Your task to perform on an android device: Search for the new steph curry shoes on Amazon. Image 0: 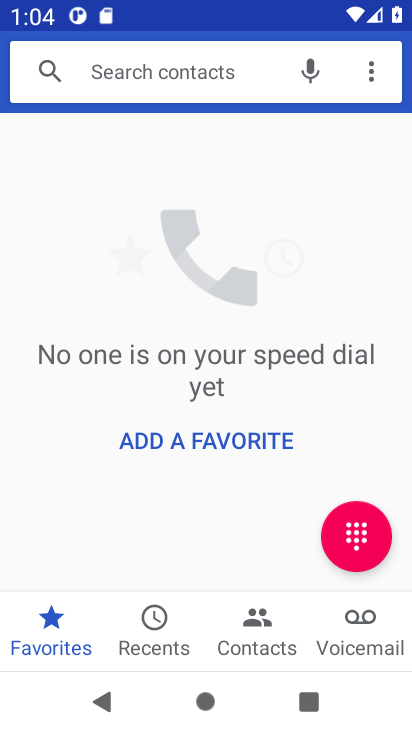
Step 0: press home button
Your task to perform on an android device: Search for the new steph curry shoes on Amazon. Image 1: 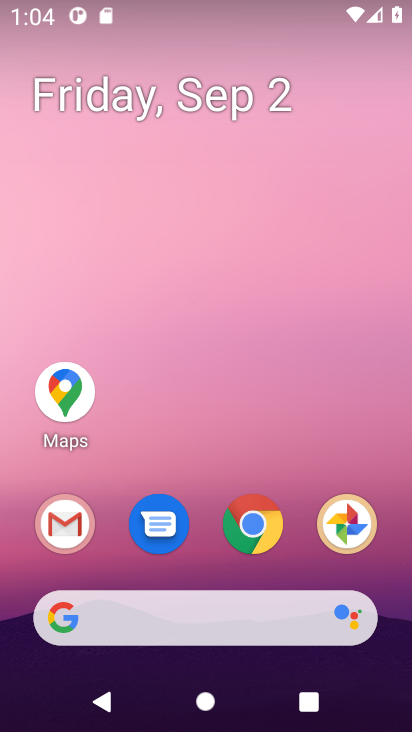
Step 1: click (292, 623)
Your task to perform on an android device: Search for the new steph curry shoes on Amazon. Image 2: 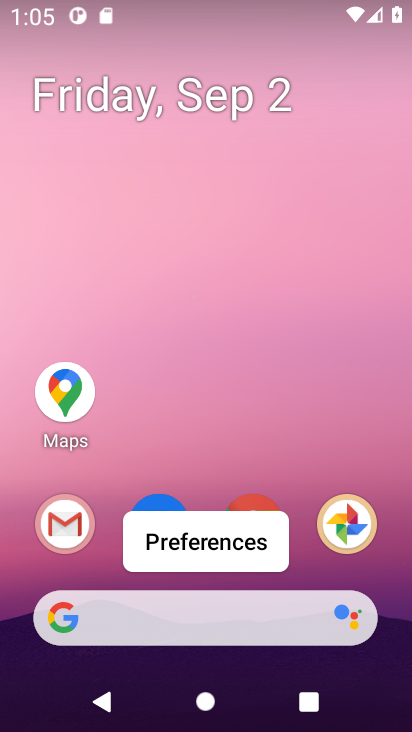
Step 2: click (292, 623)
Your task to perform on an android device: Search for the new steph curry shoes on Amazon. Image 3: 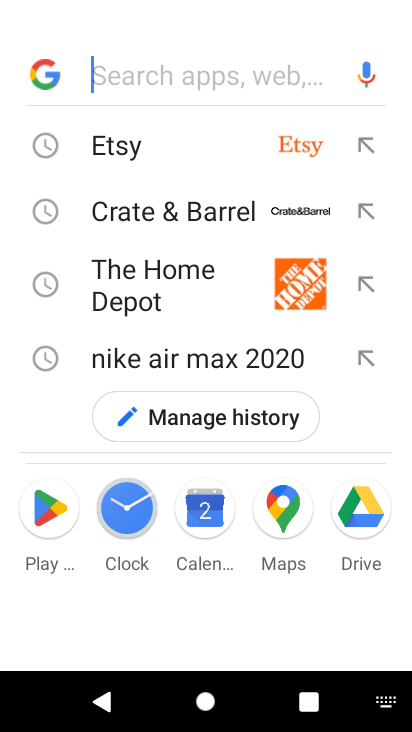
Step 3: press enter
Your task to perform on an android device: Search for the new steph curry shoes on Amazon. Image 4: 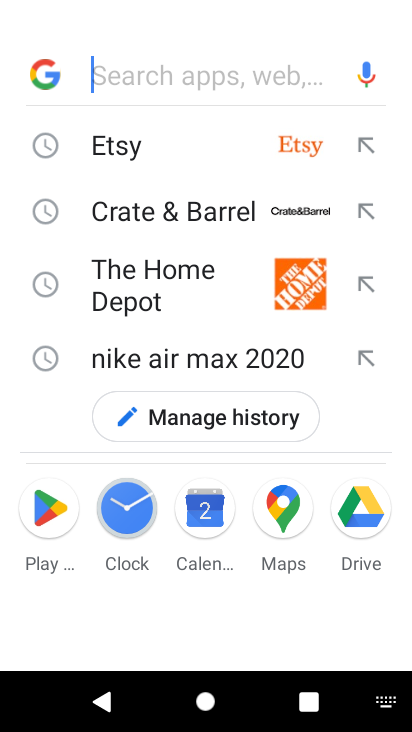
Step 4: type "amazon"
Your task to perform on an android device: Search for the new steph curry shoes on Amazon. Image 5: 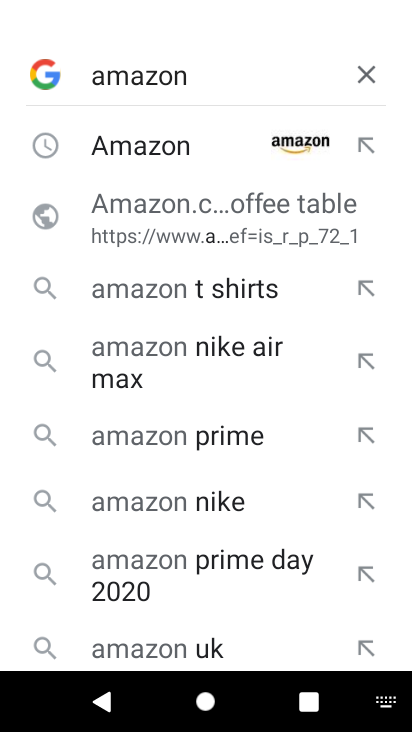
Step 5: click (199, 148)
Your task to perform on an android device: Search for the new steph curry shoes on Amazon. Image 6: 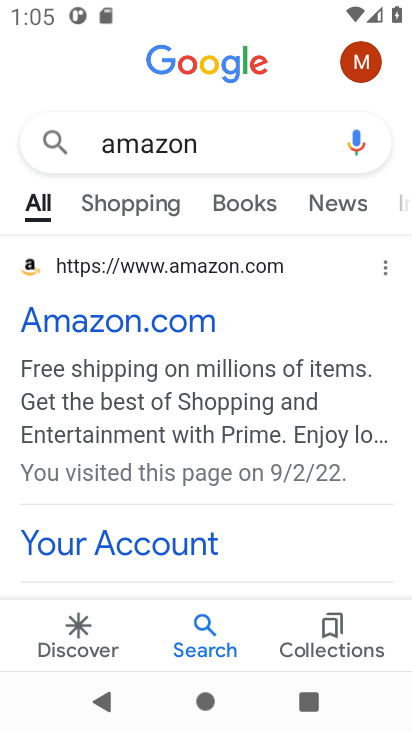
Step 6: click (126, 329)
Your task to perform on an android device: Search for the new steph curry shoes on Amazon. Image 7: 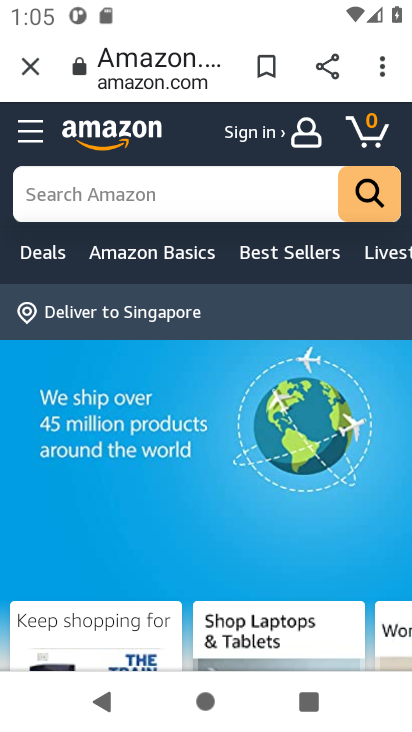
Step 7: click (232, 189)
Your task to perform on an android device: Search for the new steph curry shoes on Amazon. Image 8: 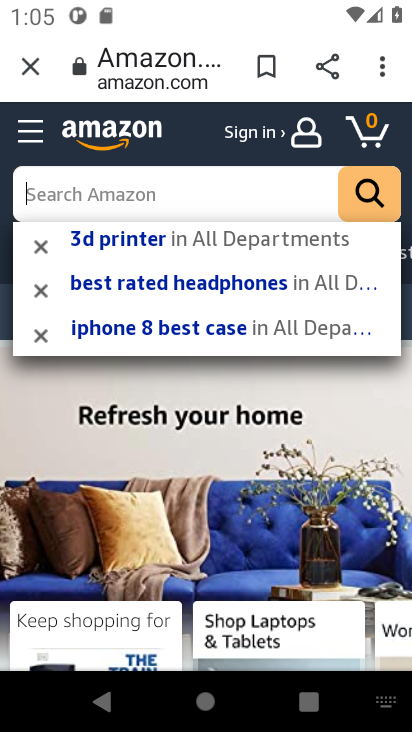
Step 8: type "steph curry shoes"
Your task to perform on an android device: Search for the new steph curry shoes on Amazon. Image 9: 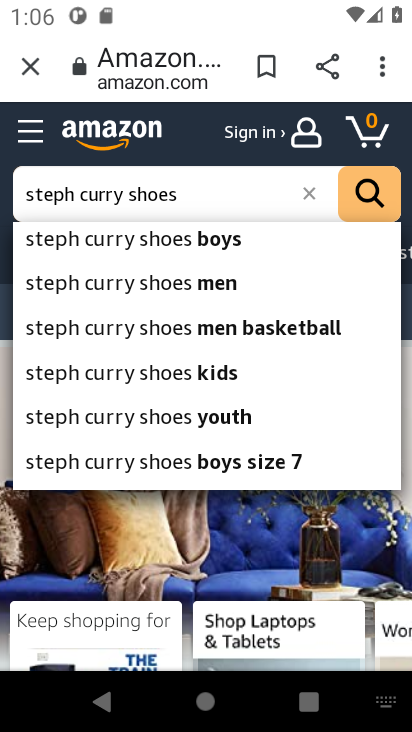
Step 9: click (365, 184)
Your task to perform on an android device: Search for the new steph curry shoes on Amazon. Image 10: 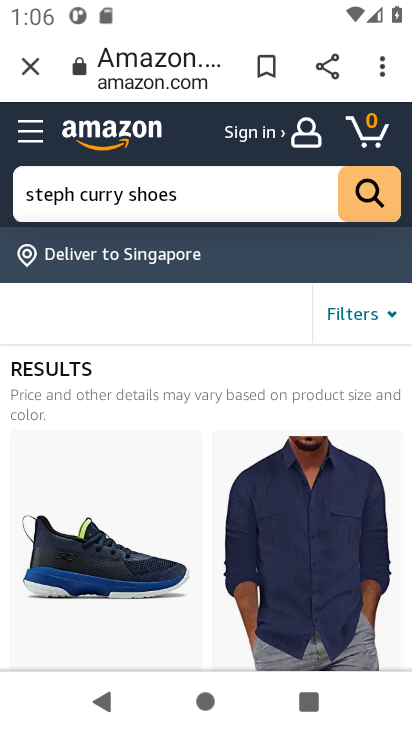
Step 10: drag from (150, 534) to (145, 311)
Your task to perform on an android device: Search for the new steph curry shoes on Amazon. Image 11: 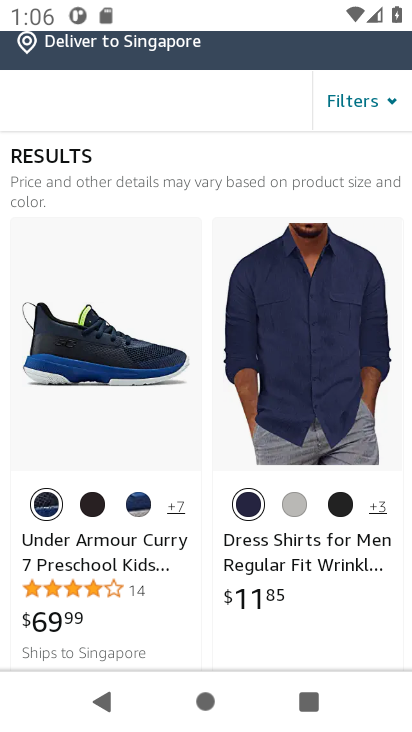
Step 11: drag from (170, 199) to (181, 440)
Your task to perform on an android device: Search for the new steph curry shoes on Amazon. Image 12: 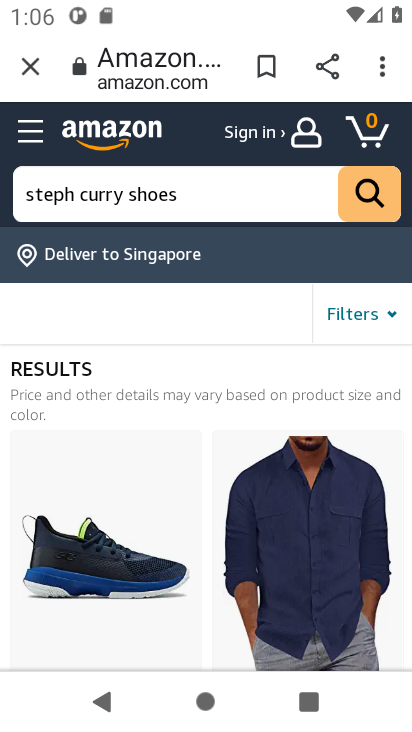
Step 12: click (395, 306)
Your task to perform on an android device: Search for the new steph curry shoes on Amazon. Image 13: 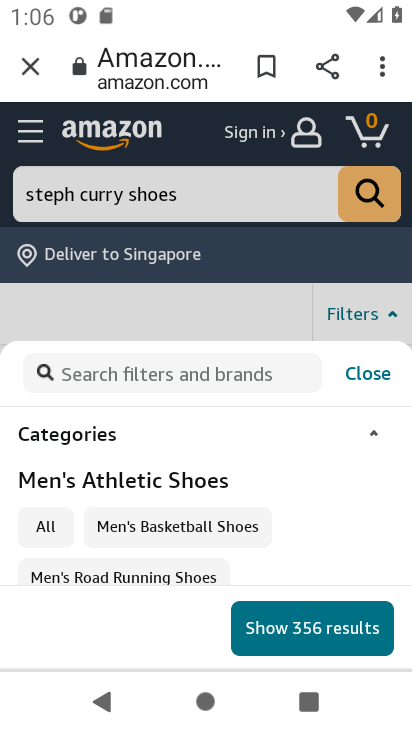
Step 13: click (51, 525)
Your task to perform on an android device: Search for the new steph curry shoes on Amazon. Image 14: 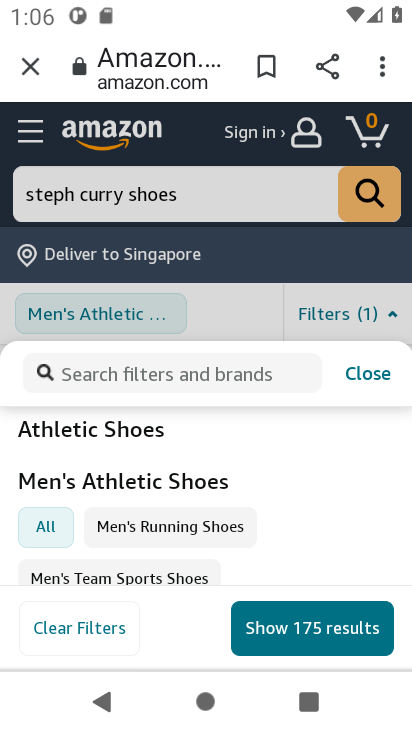
Step 14: drag from (132, 580) to (148, 418)
Your task to perform on an android device: Search for the new steph curry shoes on Amazon. Image 15: 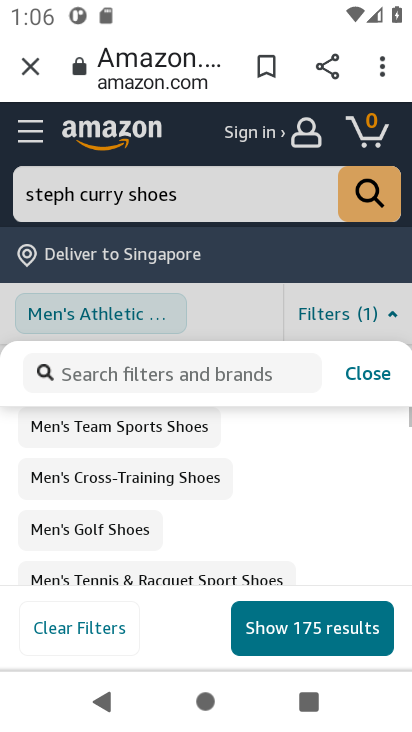
Step 15: drag from (263, 547) to (267, 412)
Your task to perform on an android device: Search for the new steph curry shoes on Amazon. Image 16: 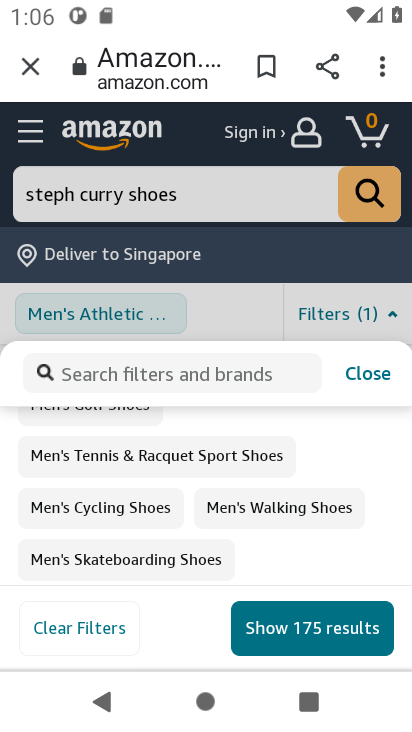
Step 16: drag from (259, 538) to (271, 458)
Your task to perform on an android device: Search for the new steph curry shoes on Amazon. Image 17: 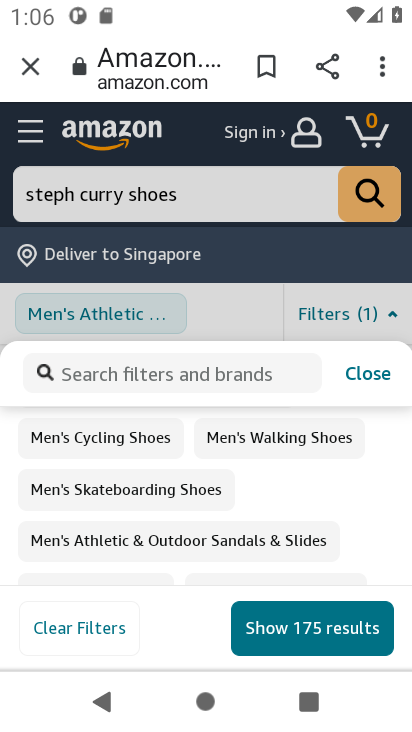
Step 17: drag from (297, 518) to (296, 442)
Your task to perform on an android device: Search for the new steph curry shoes on Amazon. Image 18: 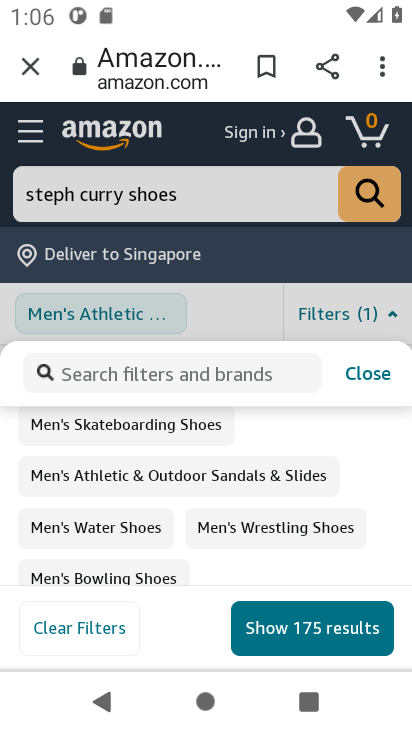
Step 18: drag from (272, 543) to (279, 473)
Your task to perform on an android device: Search for the new steph curry shoes on Amazon. Image 19: 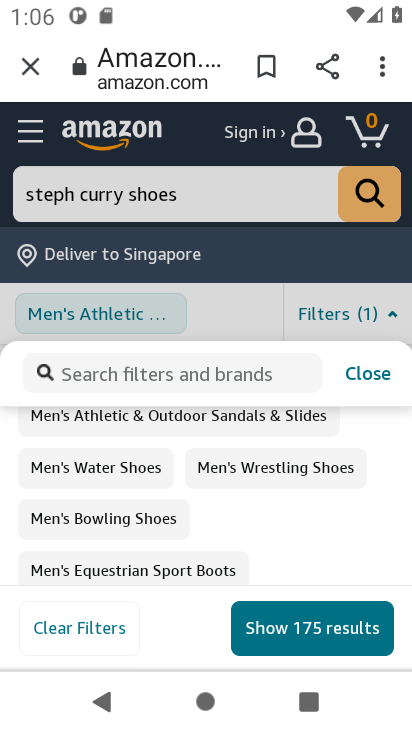
Step 19: drag from (271, 560) to (259, 448)
Your task to perform on an android device: Search for the new steph curry shoes on Amazon. Image 20: 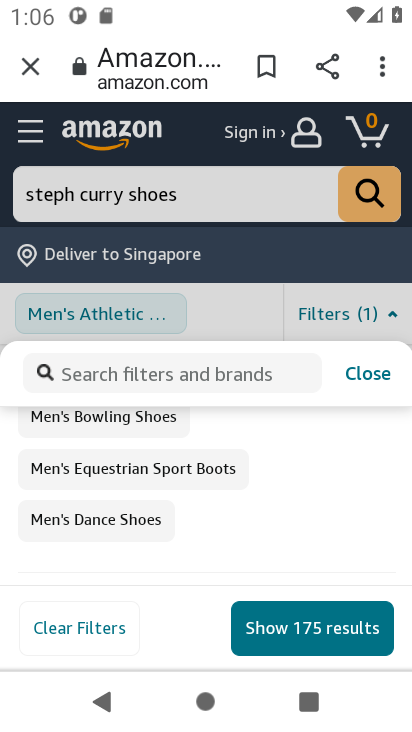
Step 20: drag from (266, 529) to (269, 415)
Your task to perform on an android device: Search for the new steph curry shoes on Amazon. Image 21: 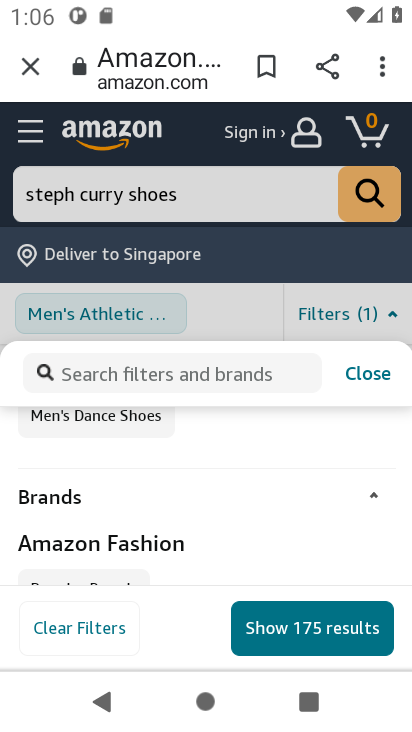
Step 21: drag from (249, 541) to (244, 414)
Your task to perform on an android device: Search for the new steph curry shoes on Amazon. Image 22: 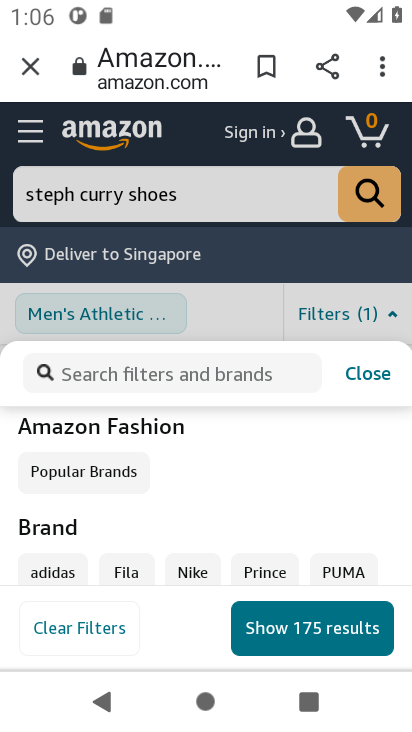
Step 22: drag from (232, 515) to (234, 399)
Your task to perform on an android device: Search for the new steph curry shoes on Amazon. Image 23: 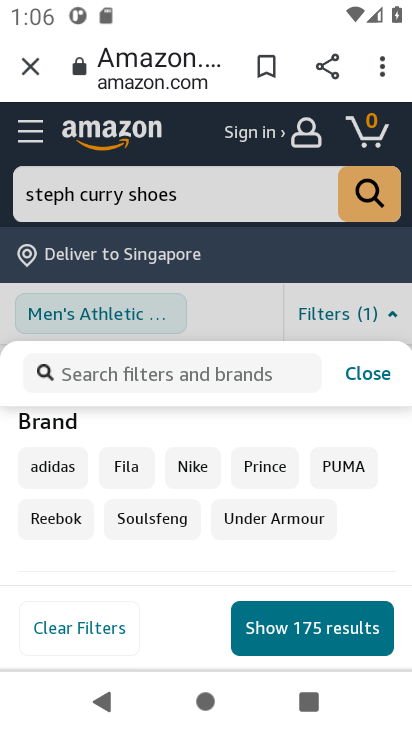
Step 23: click (232, 364)
Your task to perform on an android device: Search for the new steph curry shoes on Amazon. Image 24: 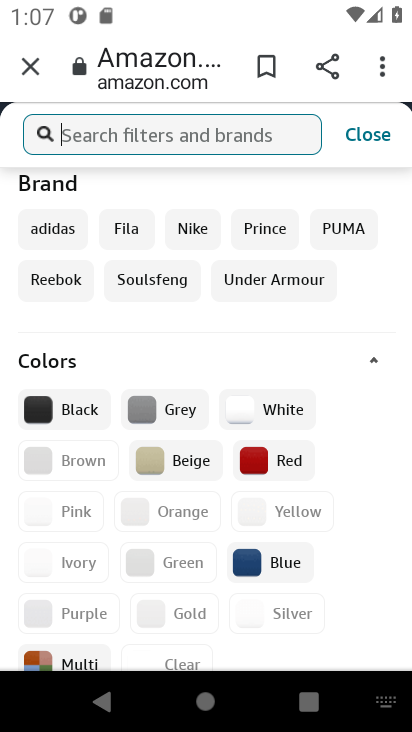
Step 24: type "steph curry shoes"
Your task to perform on an android device: Search for the new steph curry shoes on Amazon. Image 25: 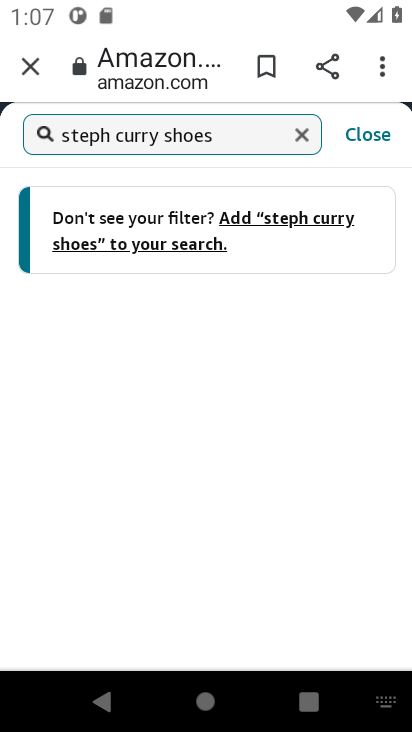
Step 25: click (253, 214)
Your task to perform on an android device: Search for the new steph curry shoes on Amazon. Image 26: 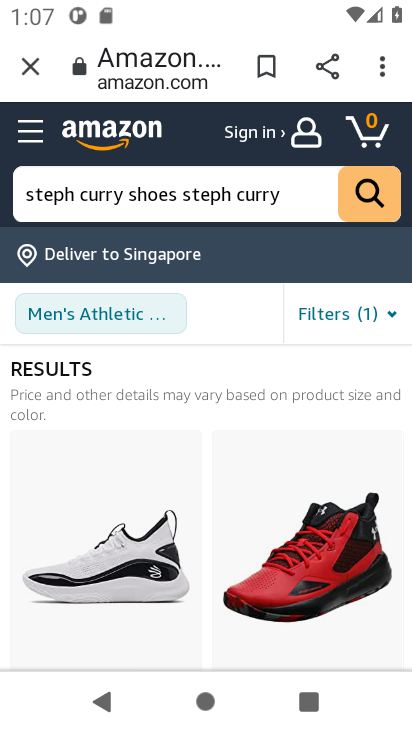
Step 26: task complete